Your task to perform on an android device: Open accessibility settings Image 0: 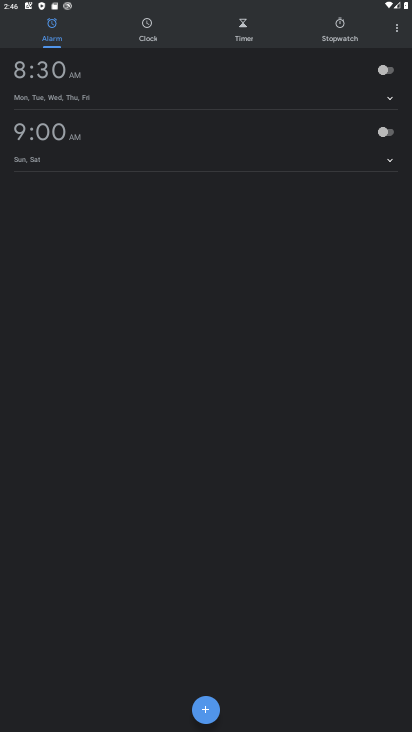
Step 0: press home button
Your task to perform on an android device: Open accessibility settings Image 1: 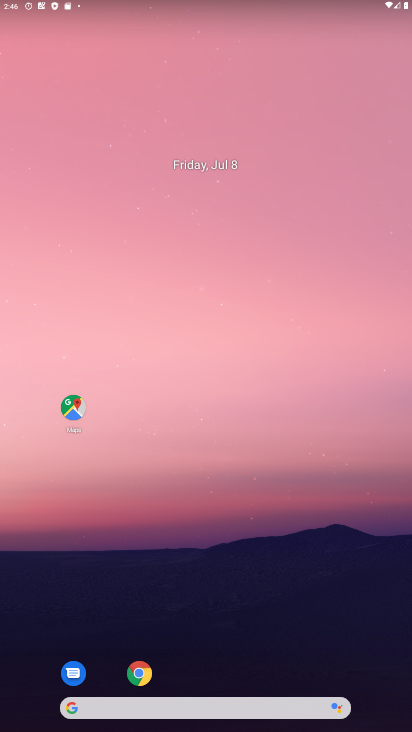
Step 1: drag from (185, 678) to (203, 316)
Your task to perform on an android device: Open accessibility settings Image 2: 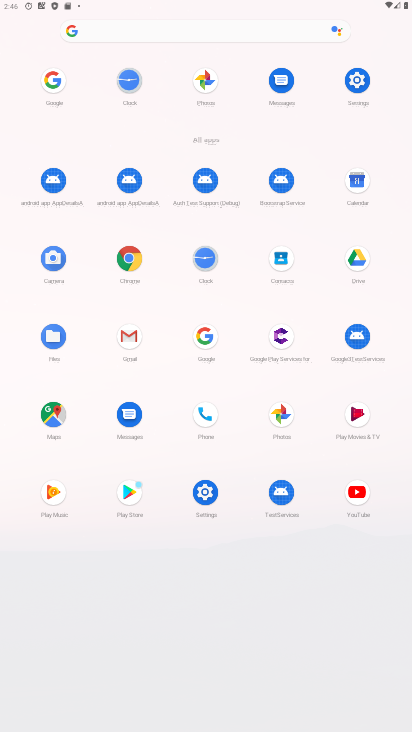
Step 2: click (366, 88)
Your task to perform on an android device: Open accessibility settings Image 3: 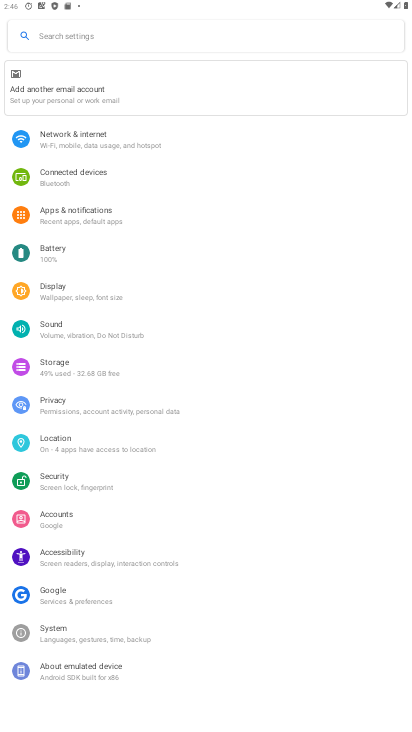
Step 3: click (79, 556)
Your task to perform on an android device: Open accessibility settings Image 4: 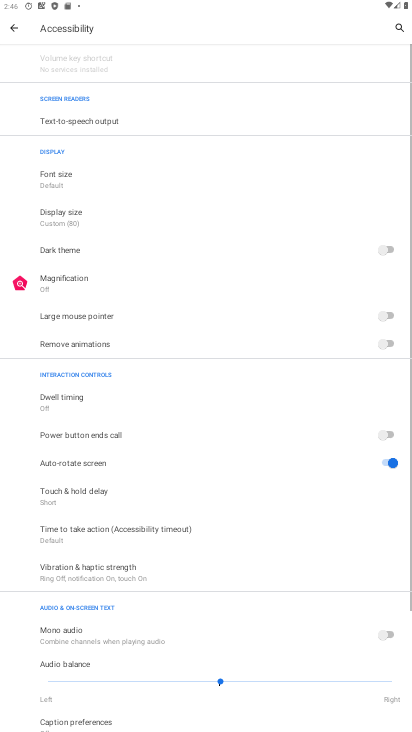
Step 4: task complete